Your task to perform on an android device: Search for pizza restaurants on Maps Image 0: 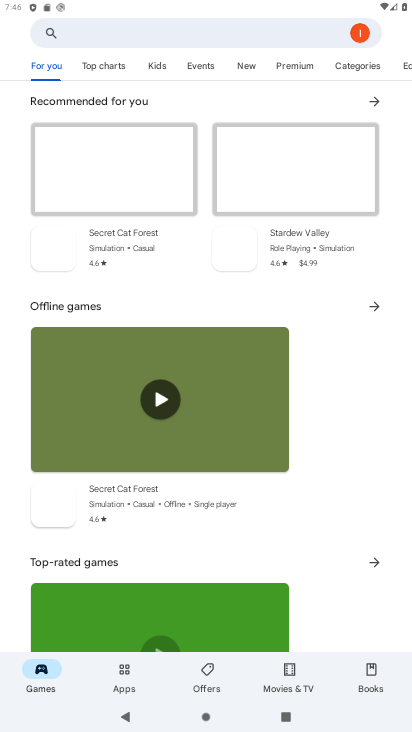
Step 0: press home button
Your task to perform on an android device: Search for pizza restaurants on Maps Image 1: 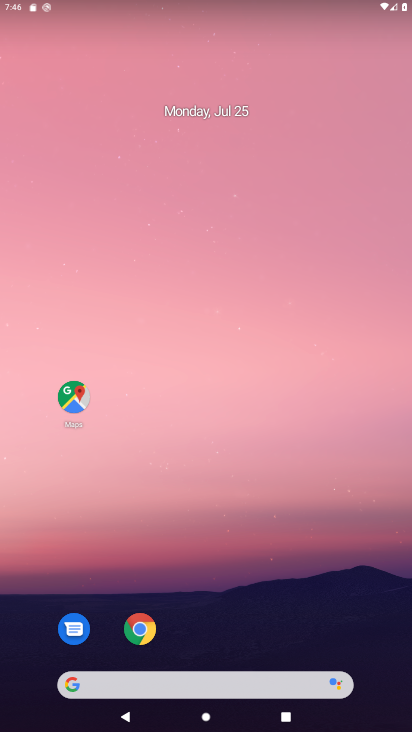
Step 1: click (77, 397)
Your task to perform on an android device: Search for pizza restaurants on Maps Image 2: 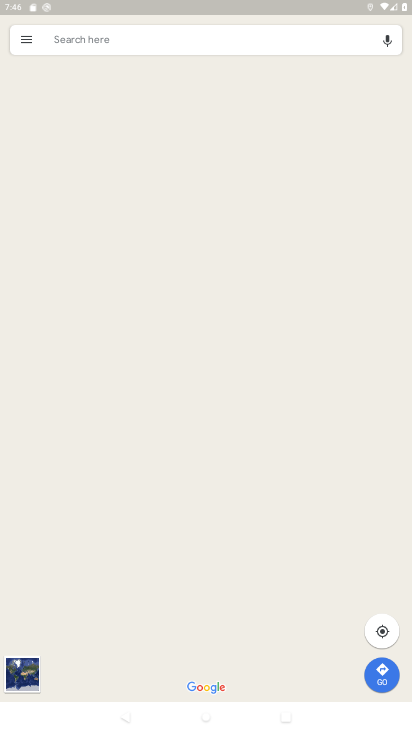
Step 2: click (136, 32)
Your task to perform on an android device: Search for pizza restaurants on Maps Image 3: 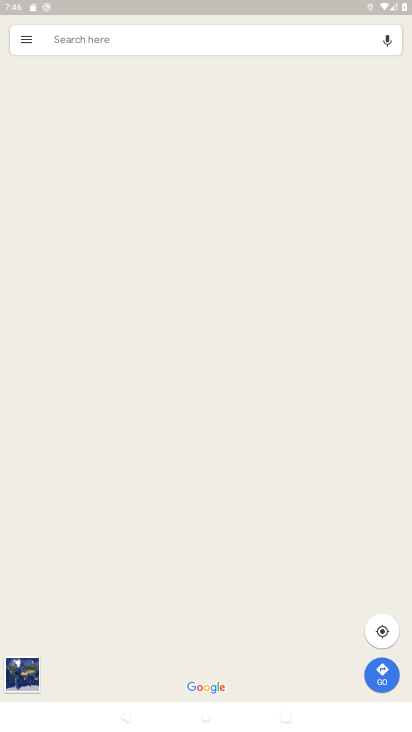
Step 3: click (144, 37)
Your task to perform on an android device: Search for pizza restaurants on Maps Image 4: 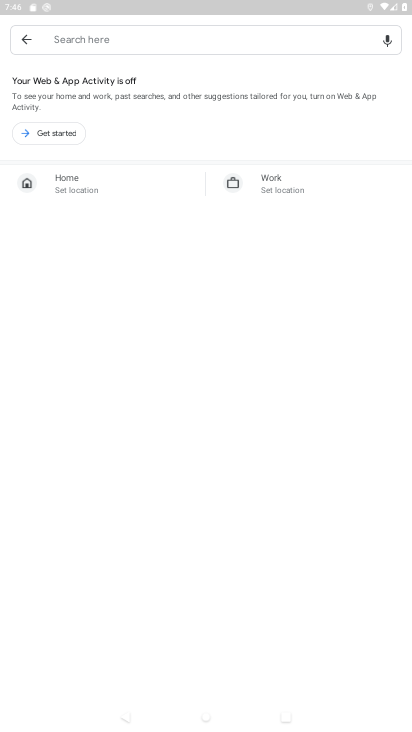
Step 4: click (142, 28)
Your task to perform on an android device: Search for pizza restaurants on Maps Image 5: 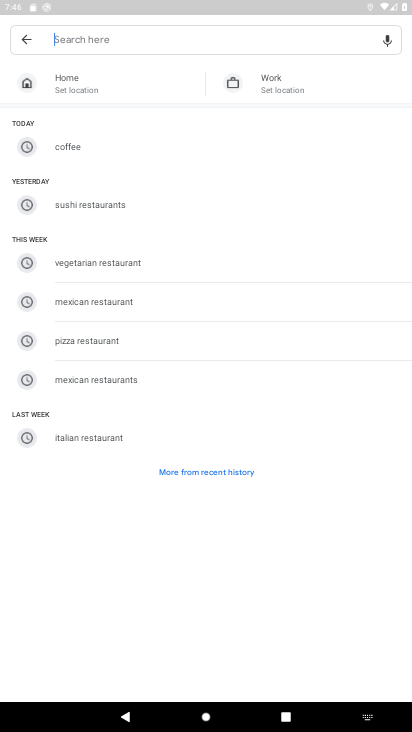
Step 5: click (106, 333)
Your task to perform on an android device: Search for pizza restaurants on Maps Image 6: 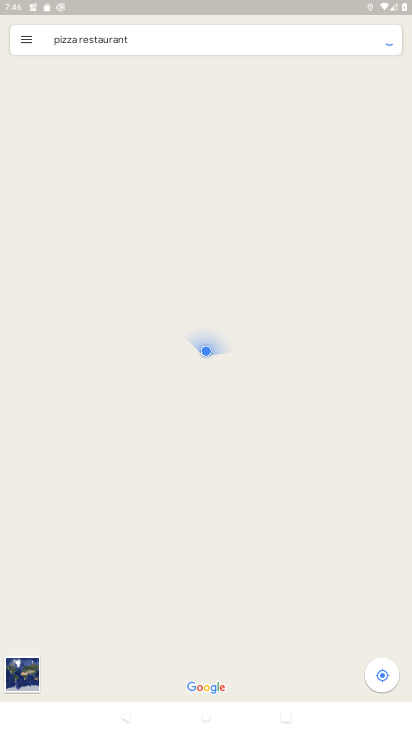
Step 6: task complete